Your task to perform on an android device: turn smart compose on in the gmail app Image 0: 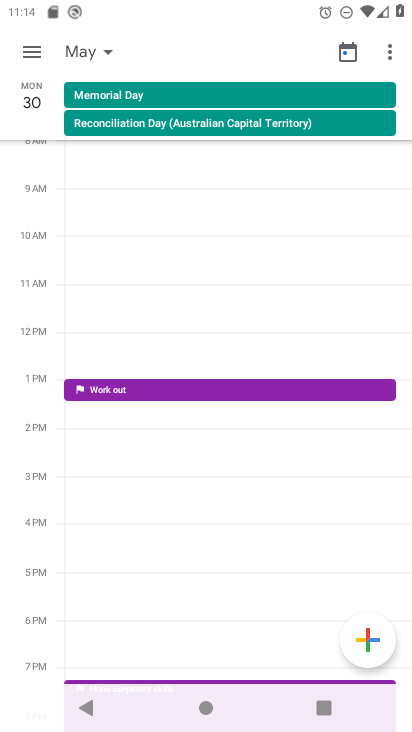
Step 0: press home button
Your task to perform on an android device: turn smart compose on in the gmail app Image 1: 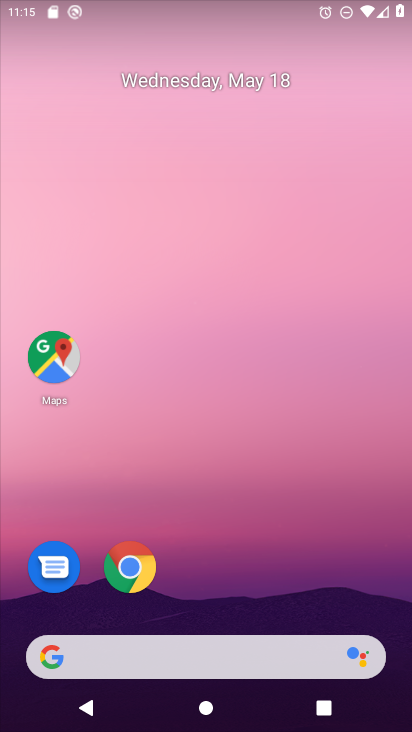
Step 1: drag from (277, 578) to (288, 228)
Your task to perform on an android device: turn smart compose on in the gmail app Image 2: 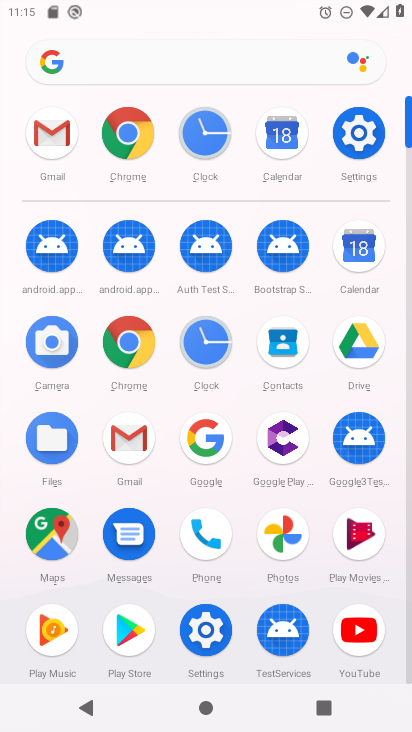
Step 2: click (136, 450)
Your task to perform on an android device: turn smart compose on in the gmail app Image 3: 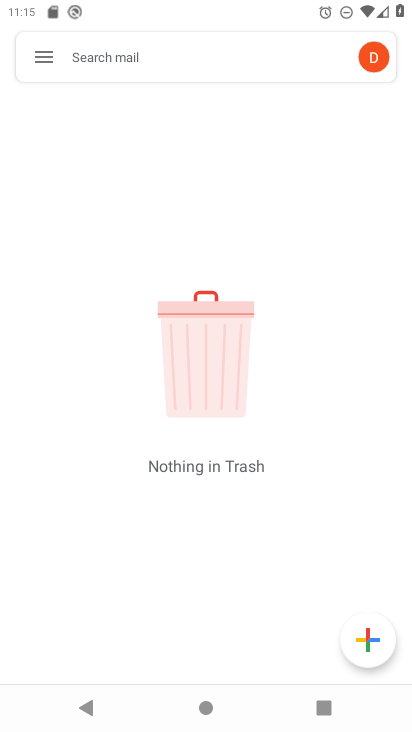
Step 3: click (45, 66)
Your task to perform on an android device: turn smart compose on in the gmail app Image 4: 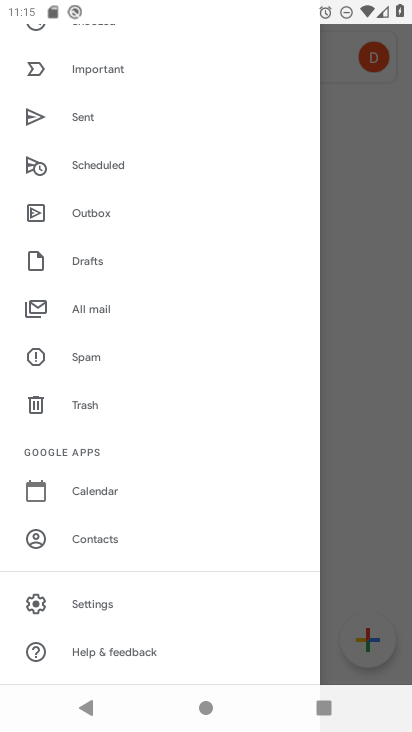
Step 4: click (93, 590)
Your task to perform on an android device: turn smart compose on in the gmail app Image 5: 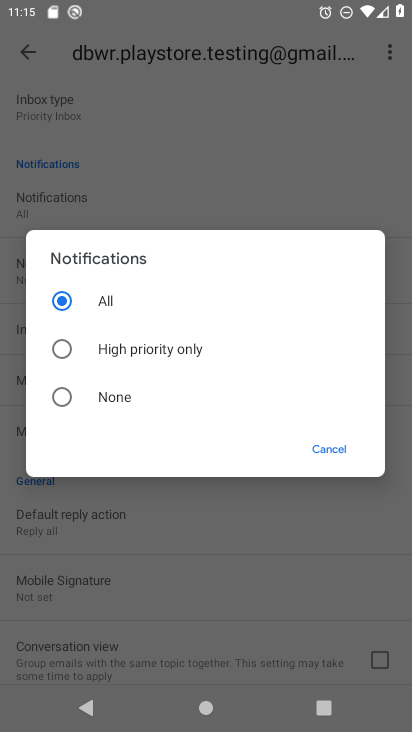
Step 5: click (306, 435)
Your task to perform on an android device: turn smart compose on in the gmail app Image 6: 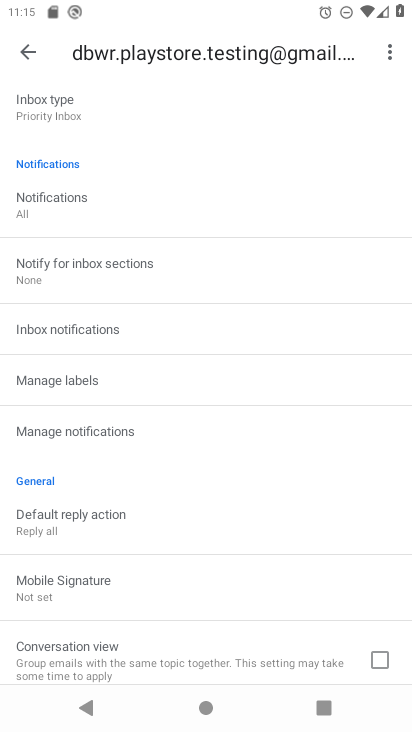
Step 6: drag from (241, 481) to (216, 82)
Your task to perform on an android device: turn smart compose on in the gmail app Image 7: 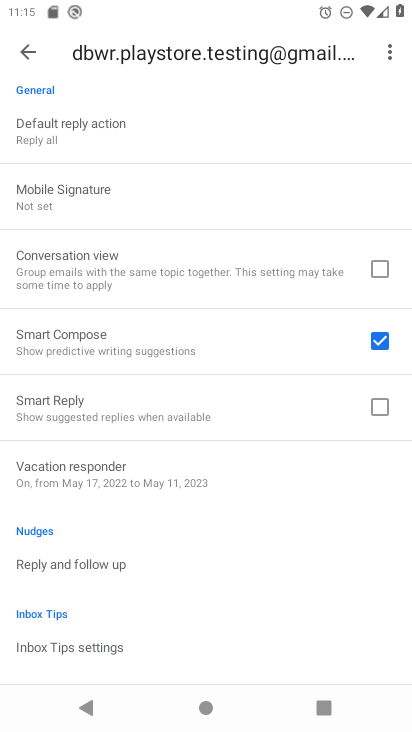
Step 7: click (378, 345)
Your task to perform on an android device: turn smart compose on in the gmail app Image 8: 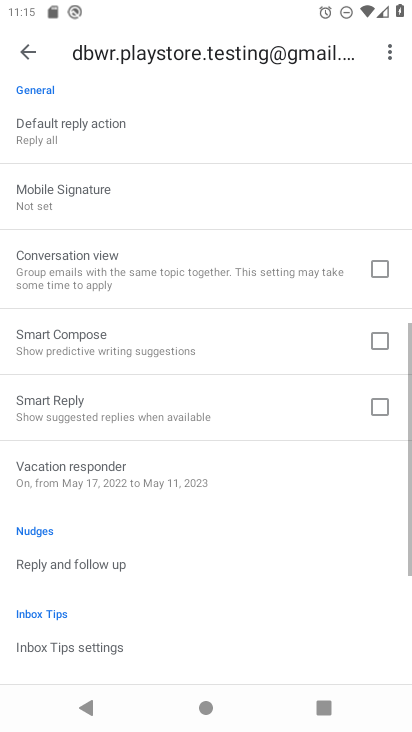
Step 8: click (378, 342)
Your task to perform on an android device: turn smart compose on in the gmail app Image 9: 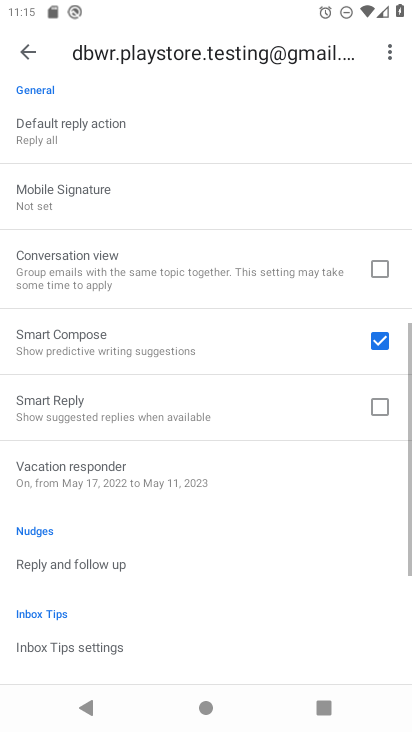
Step 9: task complete